Your task to perform on an android device: Open settings Image 0: 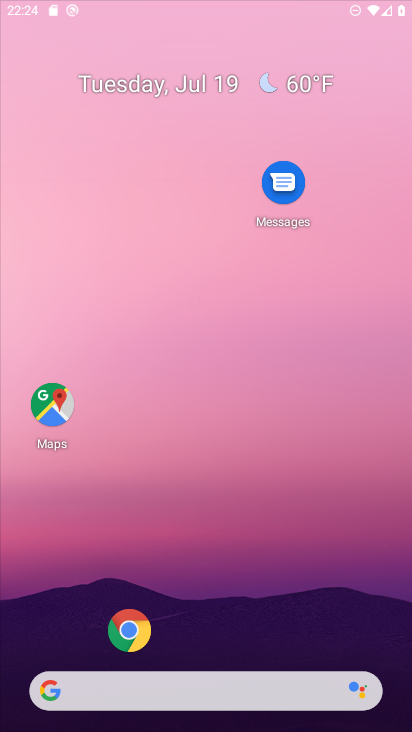
Step 0: drag from (411, 4) to (165, 325)
Your task to perform on an android device: Open settings Image 1: 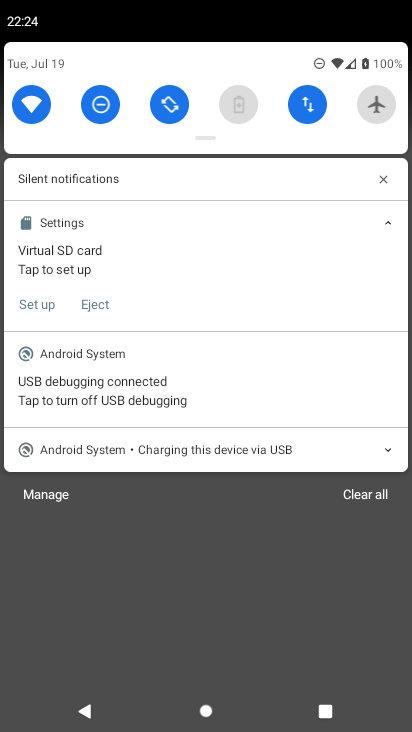
Step 1: press home button
Your task to perform on an android device: Open settings Image 2: 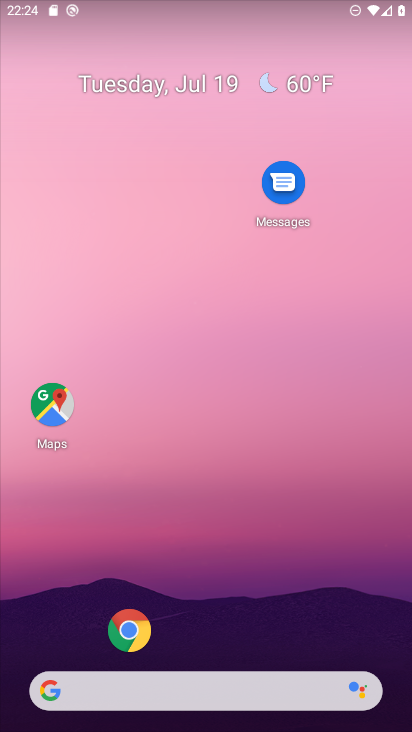
Step 2: drag from (73, 628) to (155, 223)
Your task to perform on an android device: Open settings Image 3: 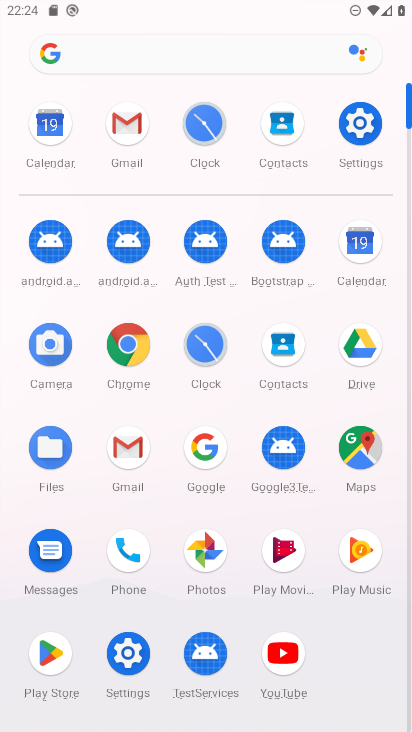
Step 3: click (119, 660)
Your task to perform on an android device: Open settings Image 4: 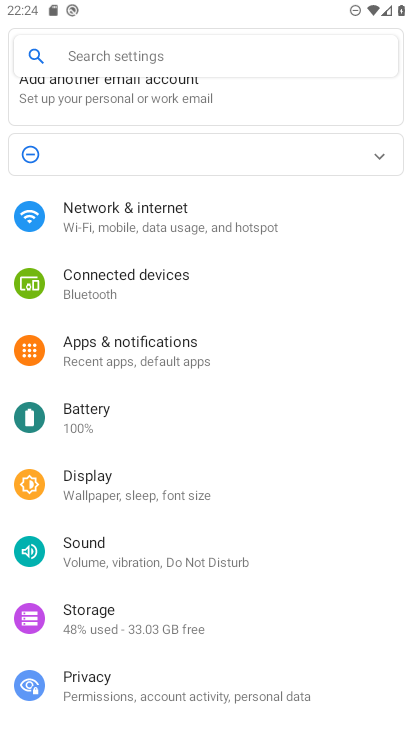
Step 4: task complete